Your task to perform on an android device: Open Maps and search for coffee Image 0: 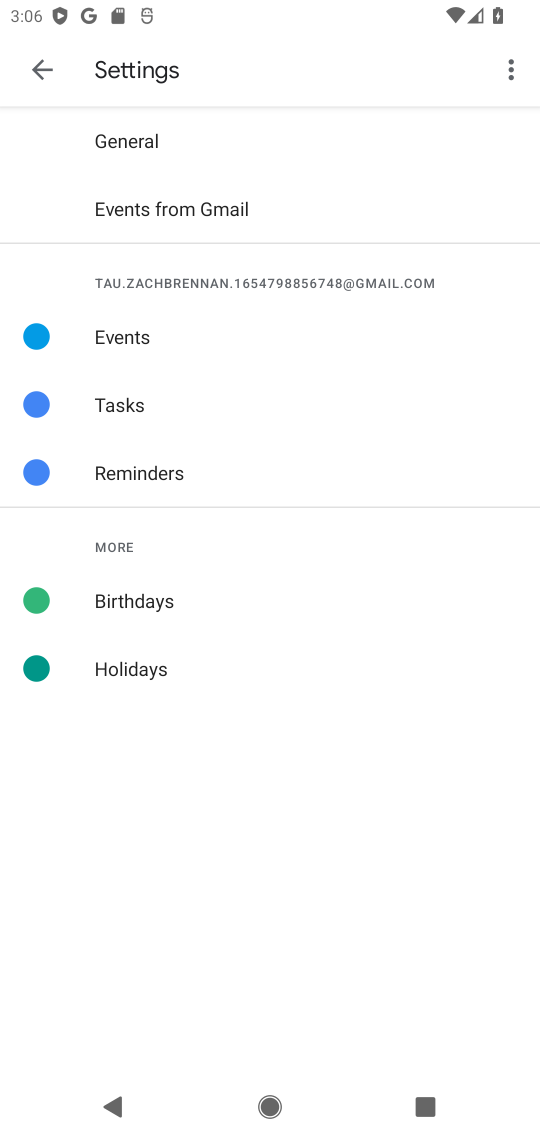
Step 0: drag from (352, 711) to (418, 338)
Your task to perform on an android device: Open Maps and search for coffee Image 1: 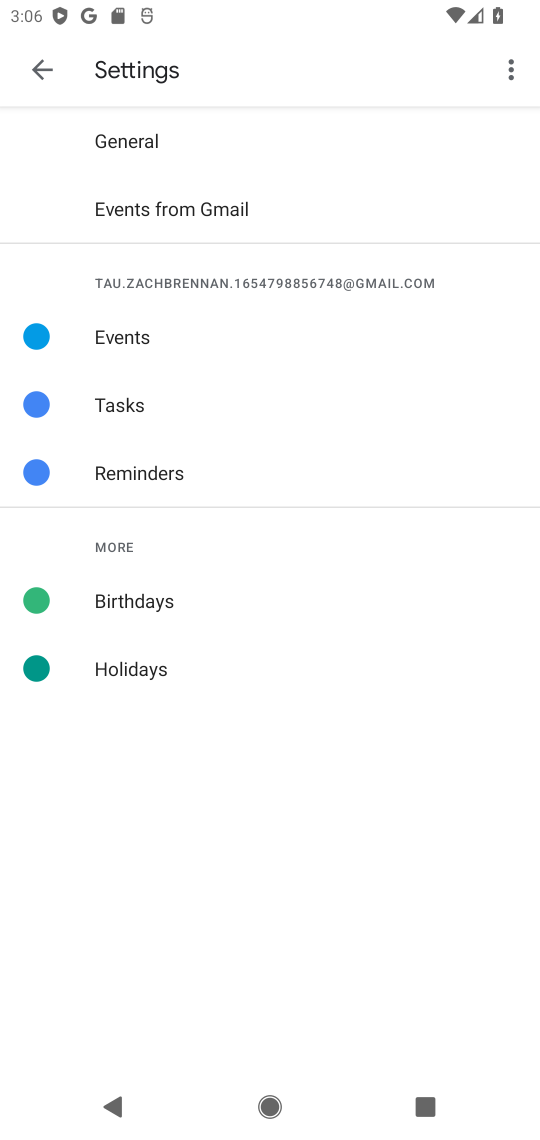
Step 1: press home button
Your task to perform on an android device: Open Maps and search for coffee Image 2: 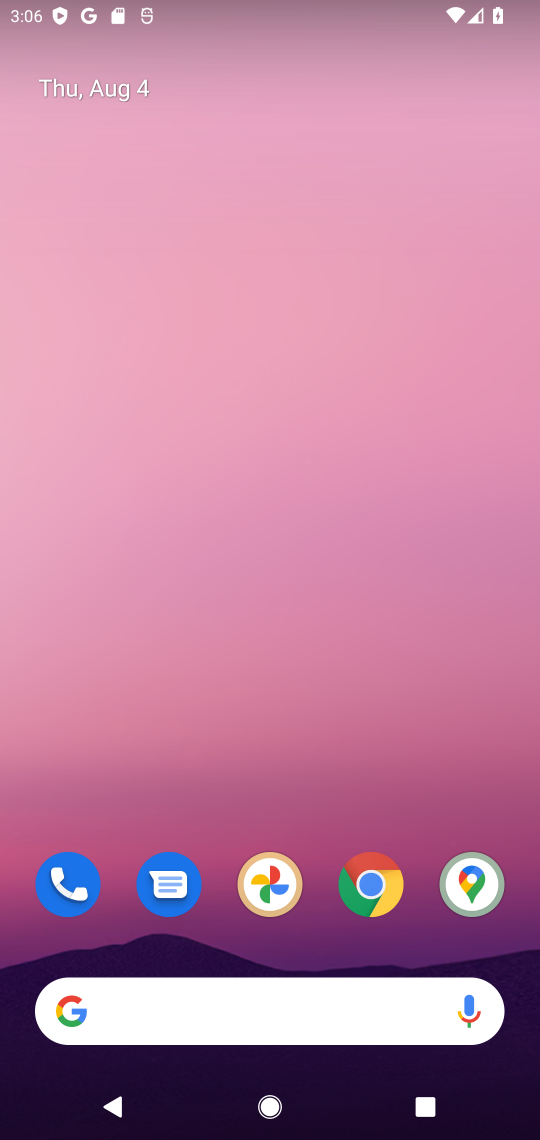
Step 2: drag from (272, 974) to (416, 285)
Your task to perform on an android device: Open Maps and search for coffee Image 3: 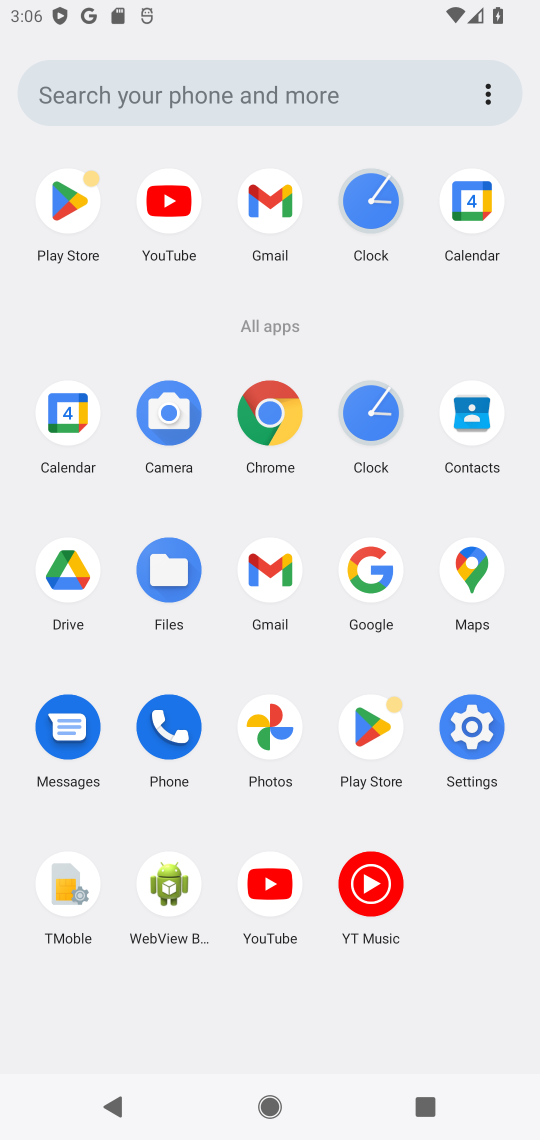
Step 3: click (468, 548)
Your task to perform on an android device: Open Maps and search for coffee Image 4: 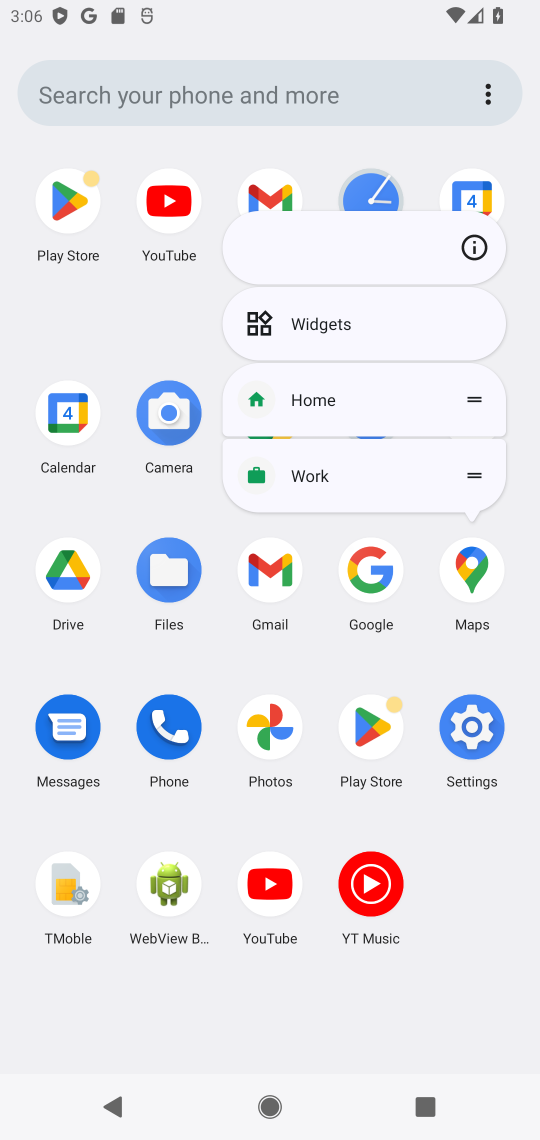
Step 4: click (481, 233)
Your task to perform on an android device: Open Maps and search for coffee Image 5: 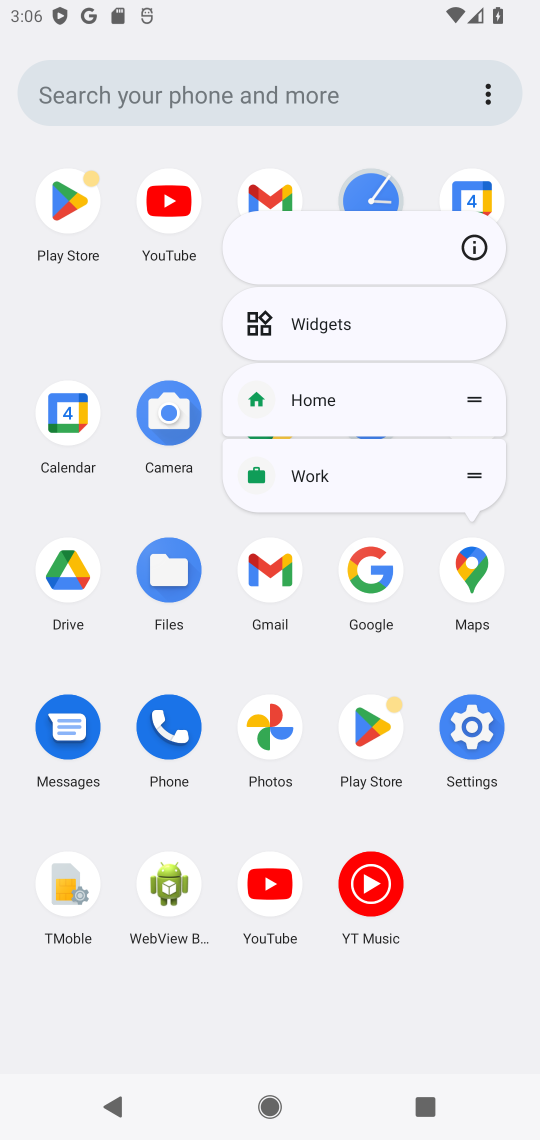
Step 5: click (481, 251)
Your task to perform on an android device: Open Maps and search for coffee Image 6: 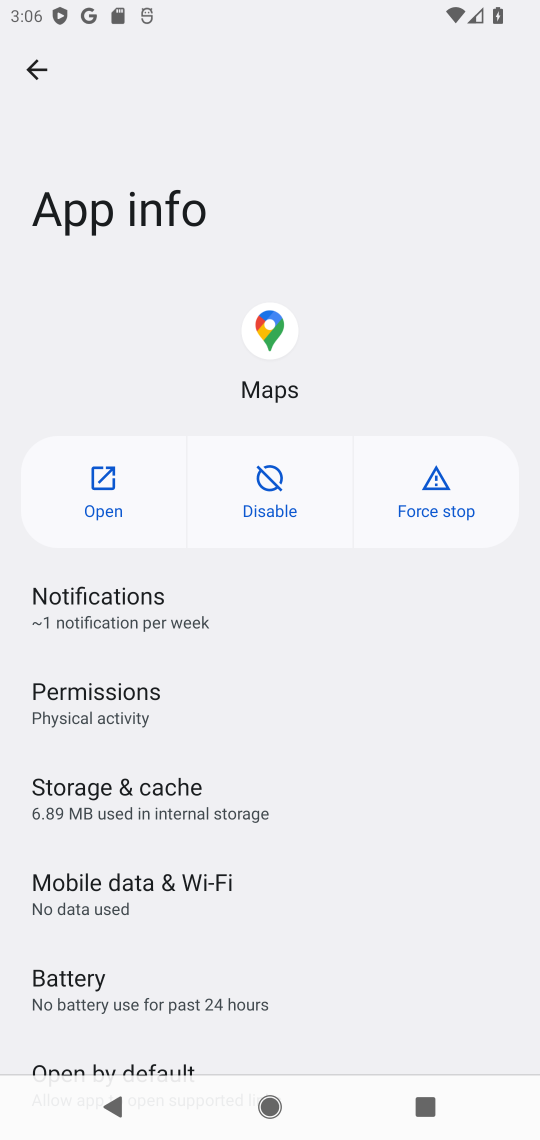
Step 6: click (101, 510)
Your task to perform on an android device: Open Maps and search for coffee Image 7: 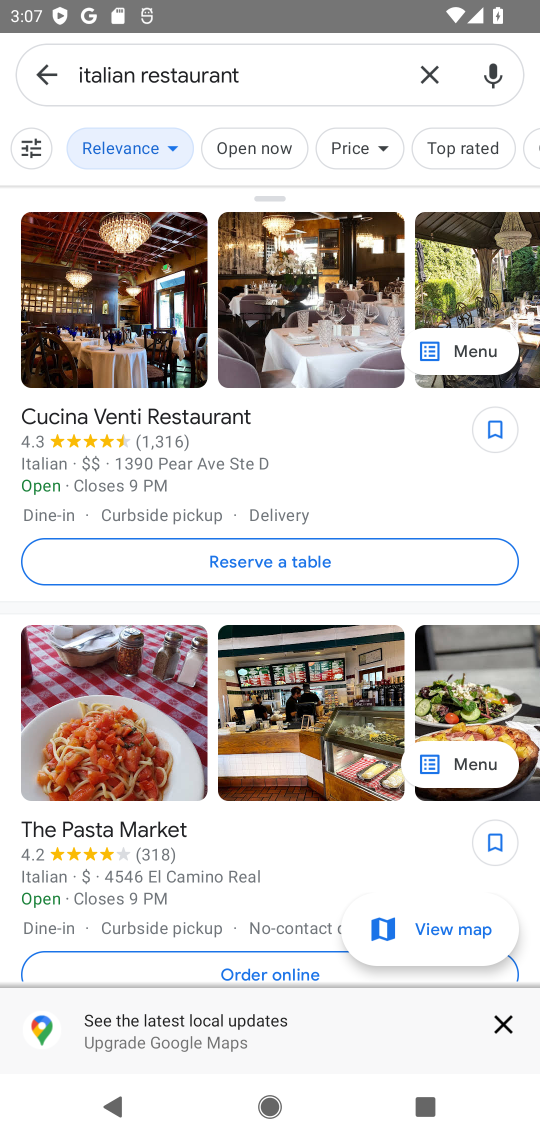
Step 7: click (186, 357)
Your task to perform on an android device: Open Maps and search for coffee Image 8: 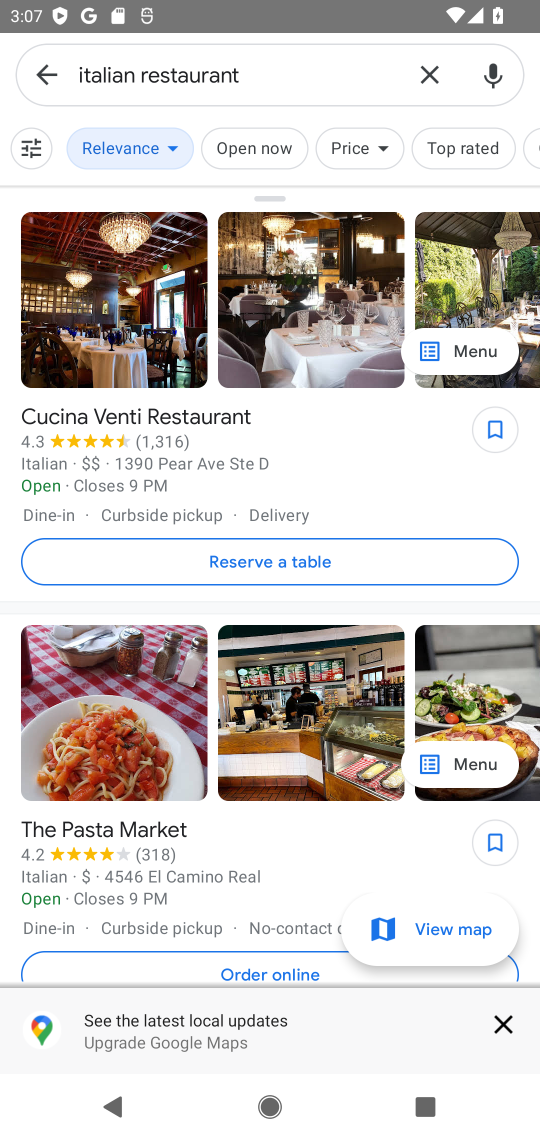
Step 8: click (428, 76)
Your task to perform on an android device: Open Maps and search for coffee Image 9: 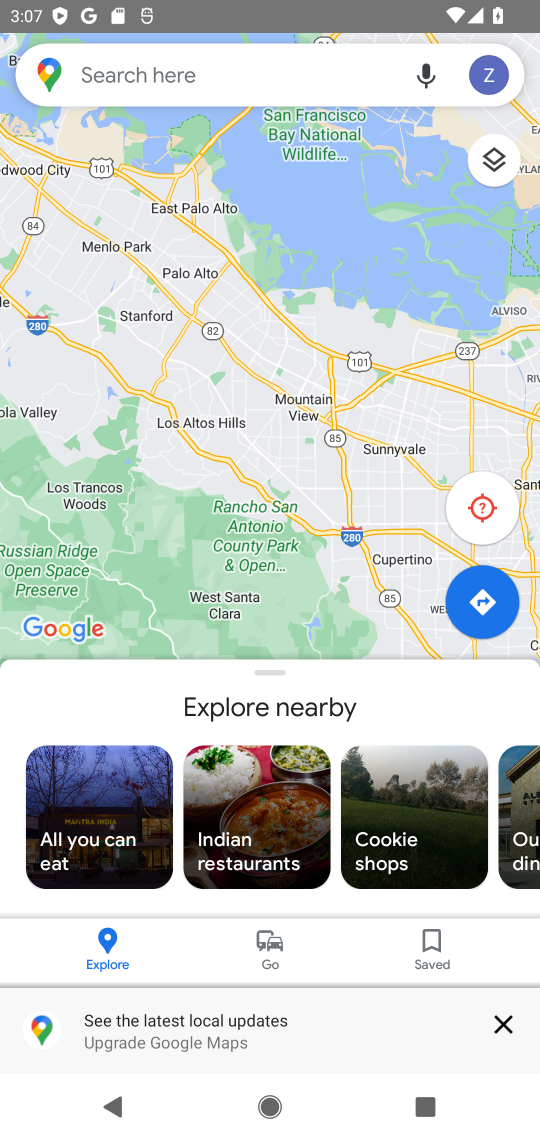
Step 9: click (156, 84)
Your task to perform on an android device: Open Maps and search for coffee Image 10: 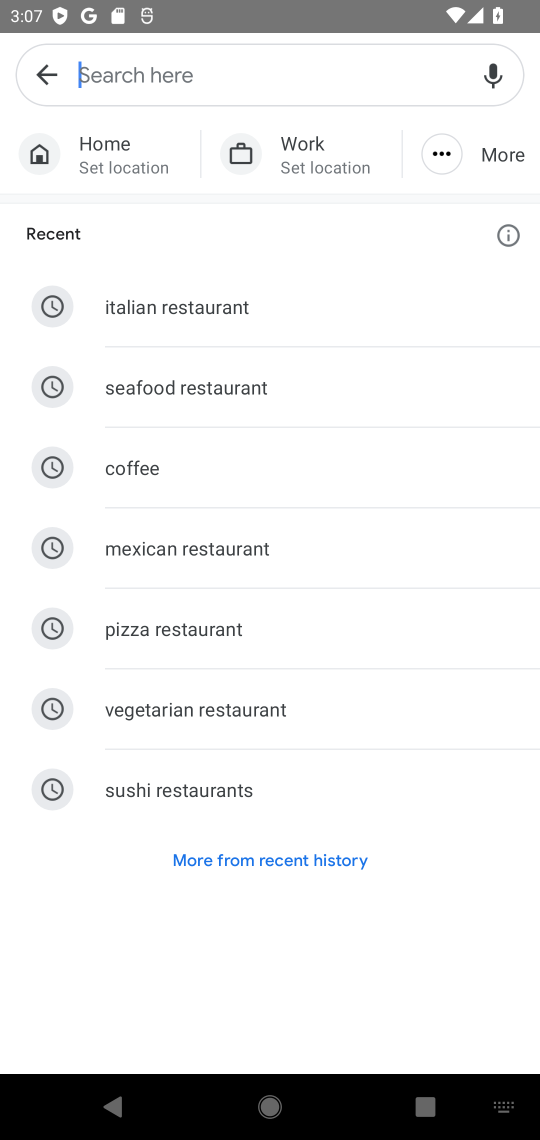
Step 10: click (196, 476)
Your task to perform on an android device: Open Maps and search for coffee Image 11: 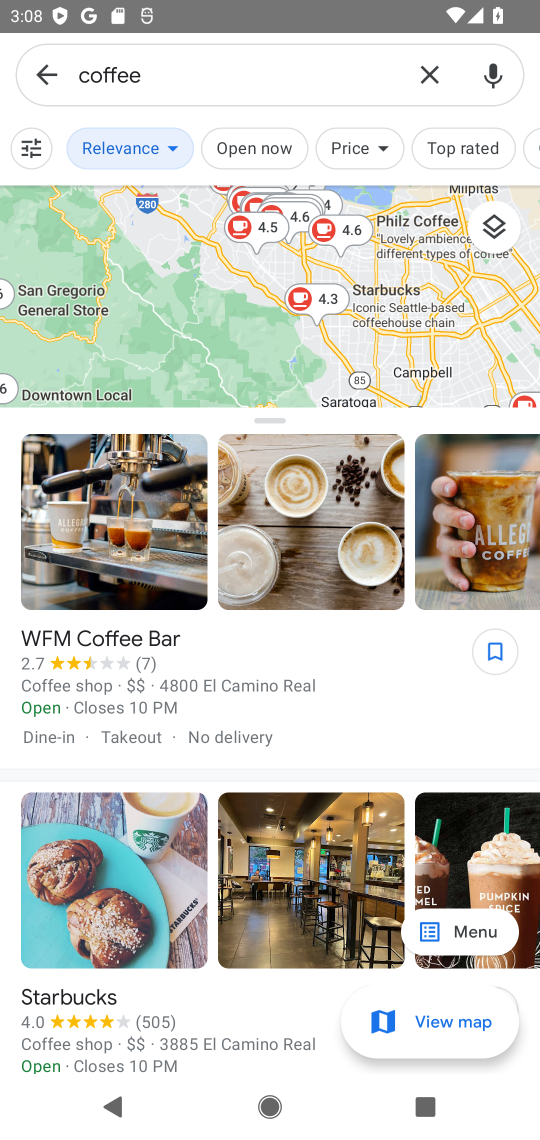
Step 11: task complete